Your task to perform on an android device: Open display settings Image 0: 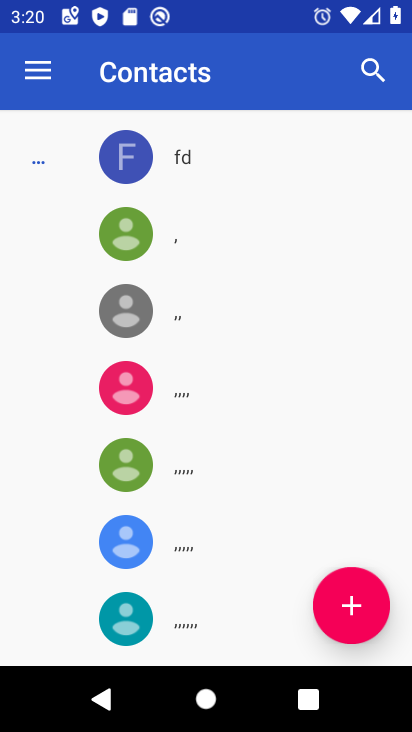
Step 0: press home button
Your task to perform on an android device: Open display settings Image 1: 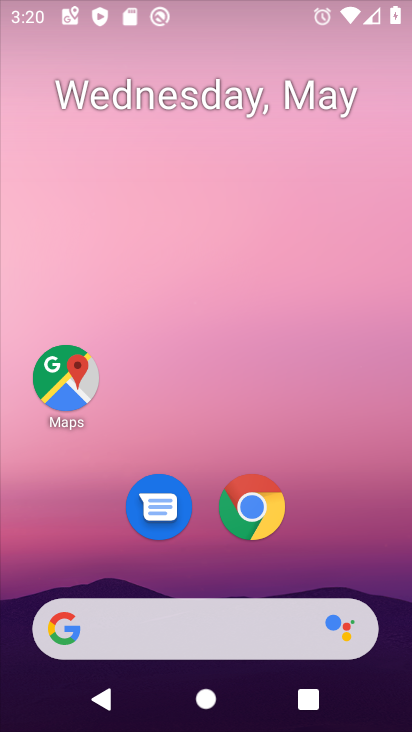
Step 1: drag from (200, 532) to (247, 122)
Your task to perform on an android device: Open display settings Image 2: 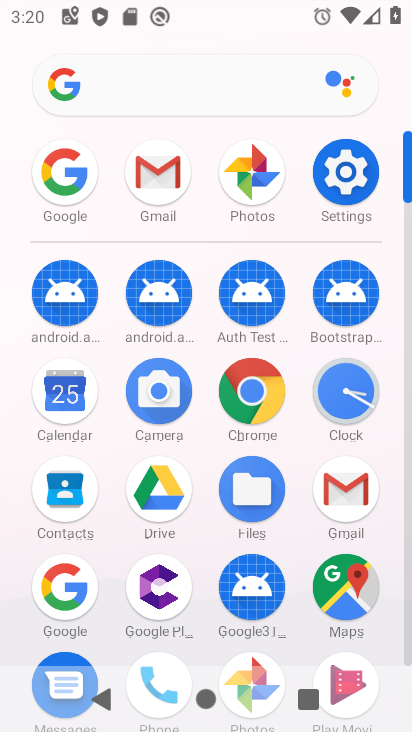
Step 2: click (340, 167)
Your task to perform on an android device: Open display settings Image 3: 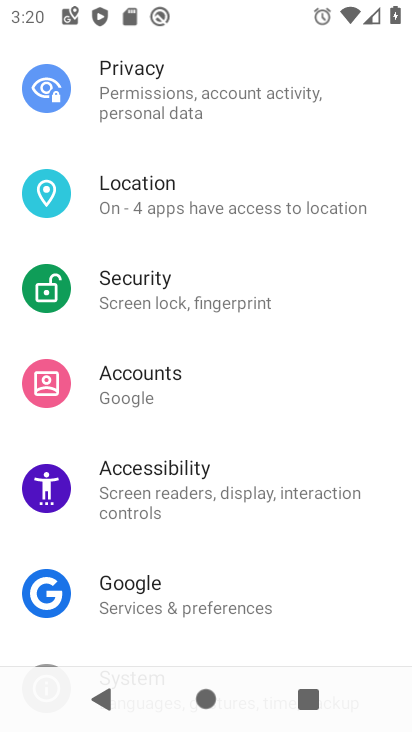
Step 3: drag from (196, 193) to (264, 480)
Your task to perform on an android device: Open display settings Image 4: 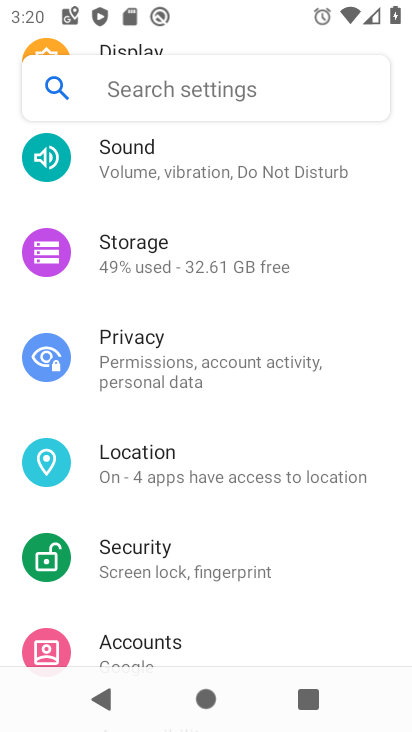
Step 4: drag from (184, 260) to (215, 432)
Your task to perform on an android device: Open display settings Image 5: 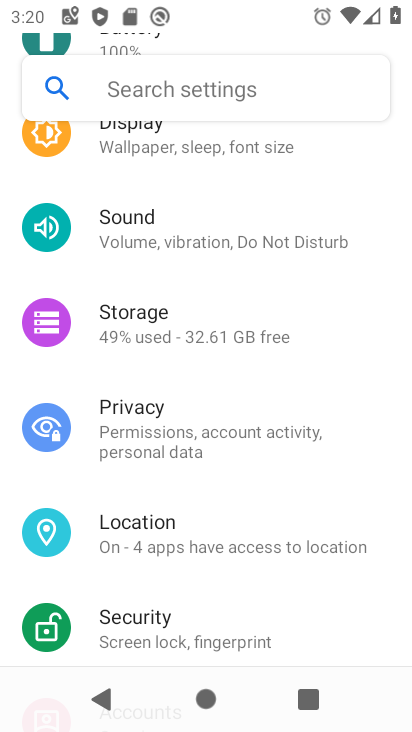
Step 5: click (155, 154)
Your task to perform on an android device: Open display settings Image 6: 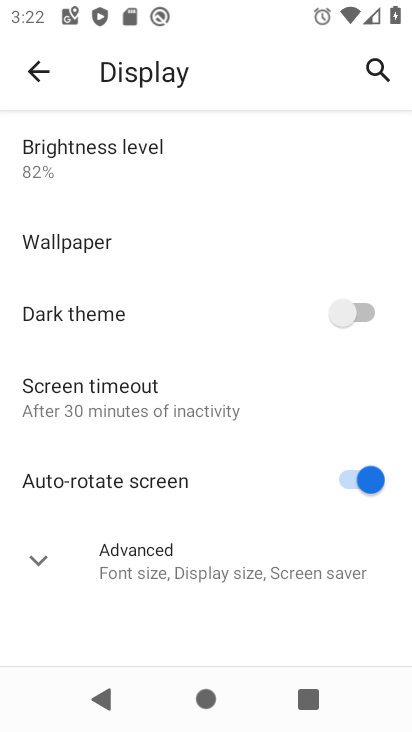
Step 6: task complete